Your task to perform on an android device: Go to calendar. Show me events next week Image 0: 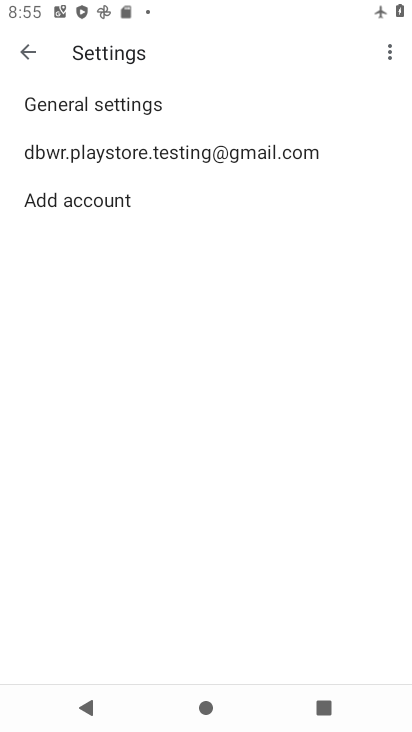
Step 0: task complete